Your task to perform on an android device: change text size in settings app Image 0: 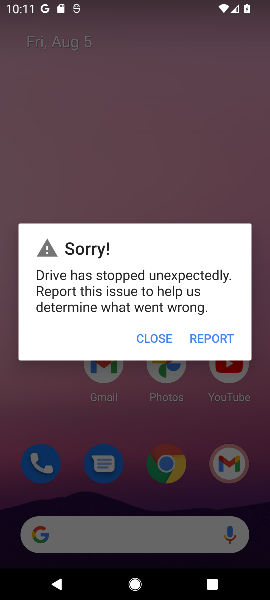
Step 0: click (170, 347)
Your task to perform on an android device: change text size in settings app Image 1: 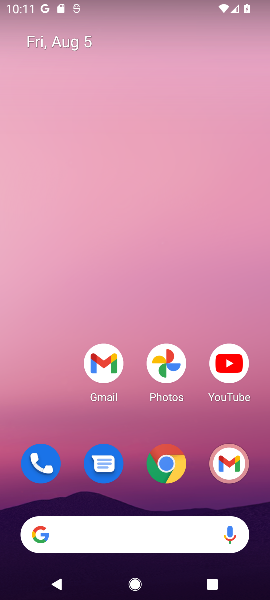
Step 1: drag from (188, 494) to (125, 108)
Your task to perform on an android device: change text size in settings app Image 2: 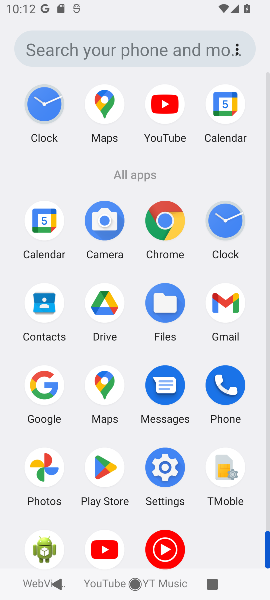
Step 2: click (173, 459)
Your task to perform on an android device: change text size in settings app Image 3: 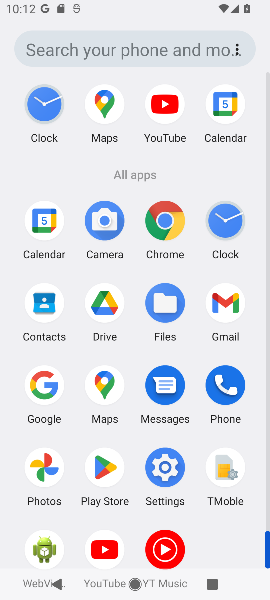
Step 3: click (164, 465)
Your task to perform on an android device: change text size in settings app Image 4: 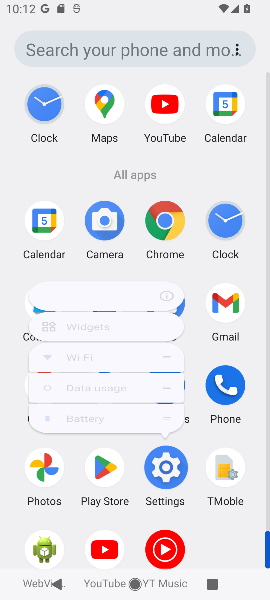
Step 4: click (166, 464)
Your task to perform on an android device: change text size in settings app Image 5: 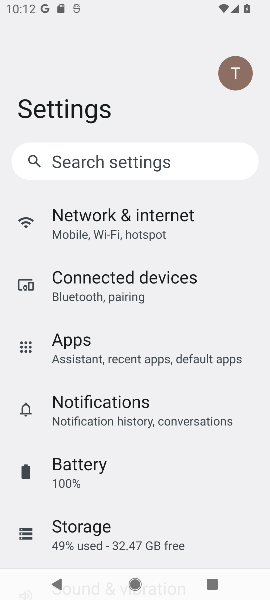
Step 5: click (161, 464)
Your task to perform on an android device: change text size in settings app Image 6: 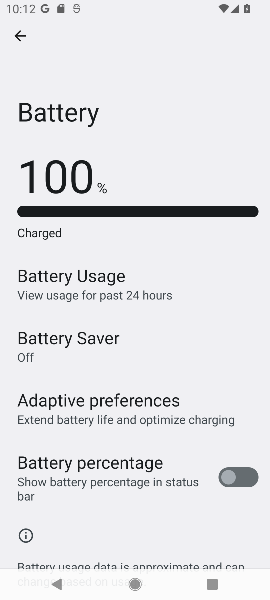
Step 6: click (15, 33)
Your task to perform on an android device: change text size in settings app Image 7: 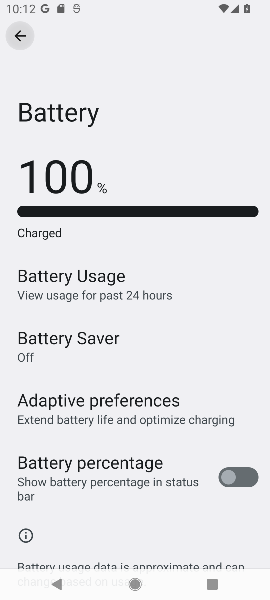
Step 7: click (20, 41)
Your task to perform on an android device: change text size in settings app Image 8: 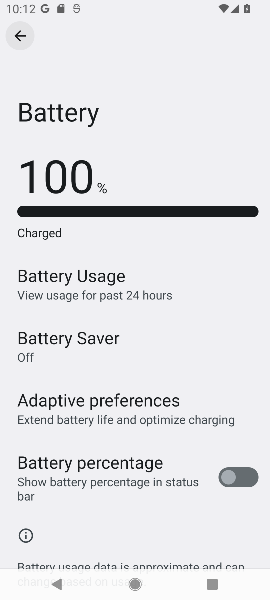
Step 8: click (20, 41)
Your task to perform on an android device: change text size in settings app Image 9: 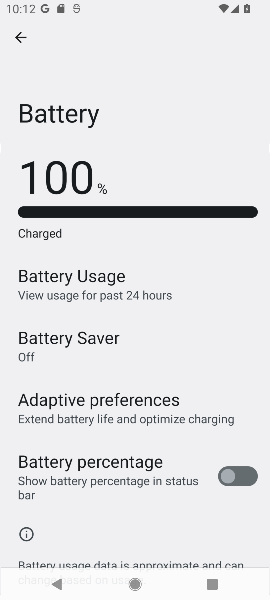
Step 9: click (20, 44)
Your task to perform on an android device: change text size in settings app Image 10: 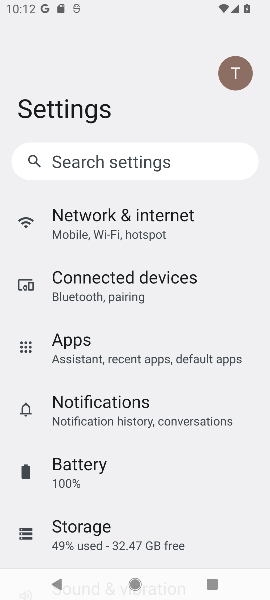
Step 10: click (20, 43)
Your task to perform on an android device: change text size in settings app Image 11: 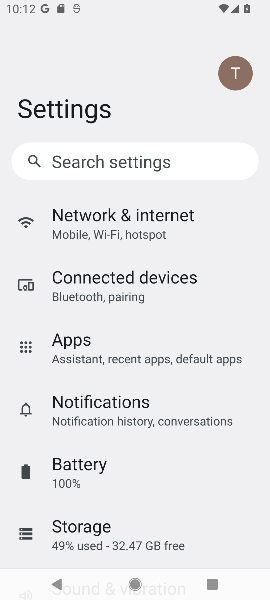
Step 11: drag from (104, 422) to (101, 219)
Your task to perform on an android device: change text size in settings app Image 12: 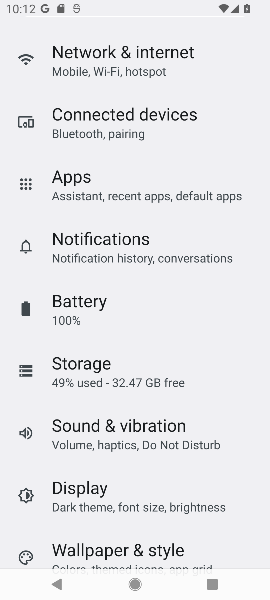
Step 12: drag from (100, 394) to (104, 87)
Your task to perform on an android device: change text size in settings app Image 13: 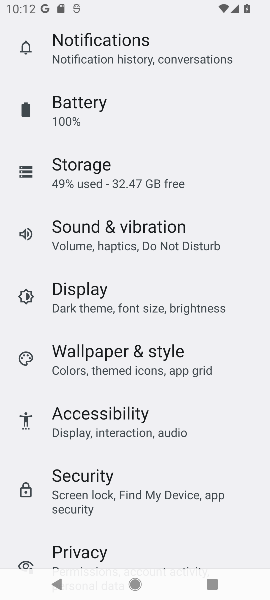
Step 13: drag from (104, 350) to (83, 180)
Your task to perform on an android device: change text size in settings app Image 14: 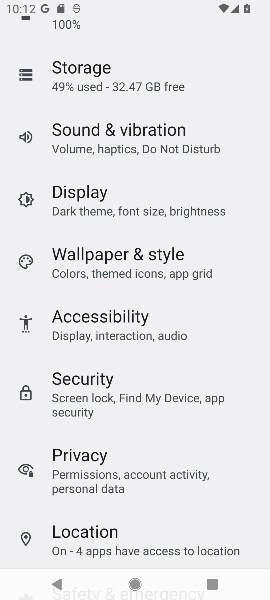
Step 14: click (92, 203)
Your task to perform on an android device: change text size in settings app Image 15: 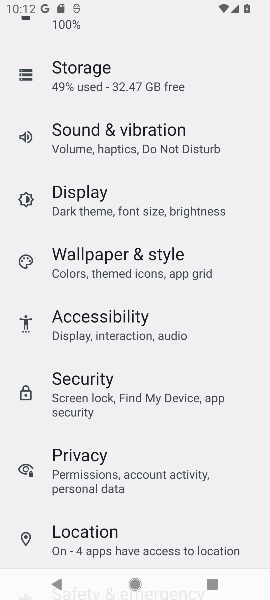
Step 15: click (92, 203)
Your task to perform on an android device: change text size in settings app Image 16: 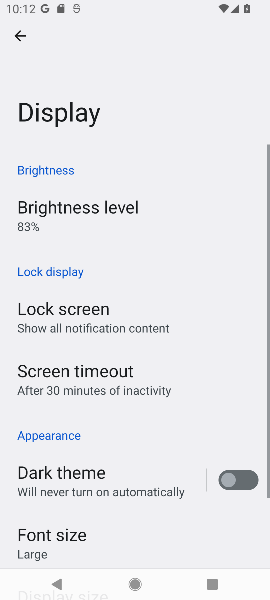
Step 16: click (92, 204)
Your task to perform on an android device: change text size in settings app Image 17: 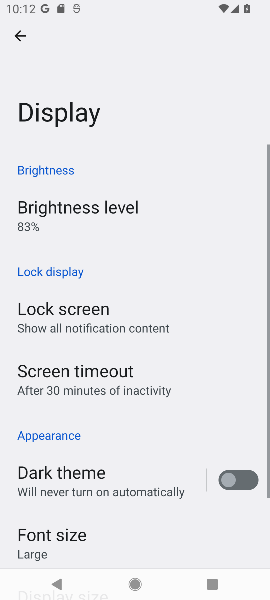
Step 17: click (92, 204)
Your task to perform on an android device: change text size in settings app Image 18: 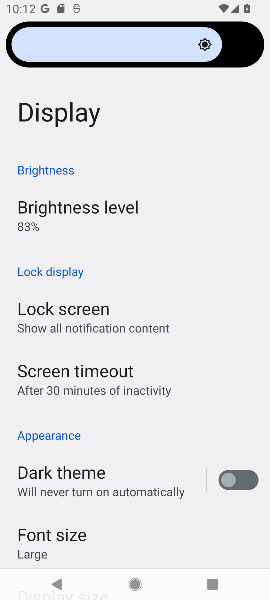
Step 18: press back button
Your task to perform on an android device: change text size in settings app Image 19: 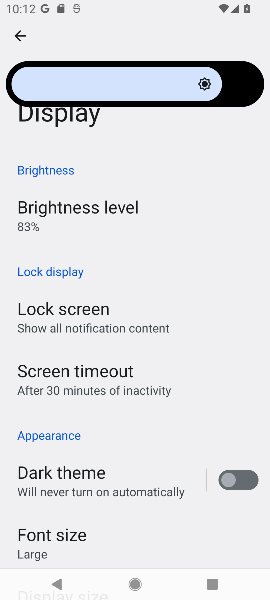
Step 19: press back button
Your task to perform on an android device: change text size in settings app Image 20: 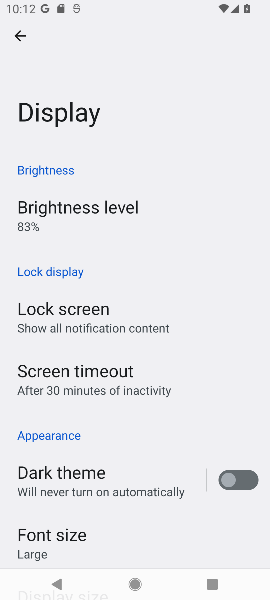
Step 20: press back button
Your task to perform on an android device: change text size in settings app Image 21: 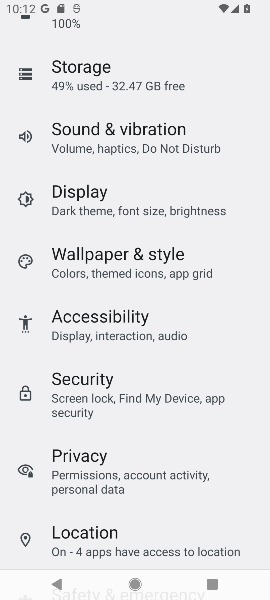
Step 21: press back button
Your task to perform on an android device: change text size in settings app Image 22: 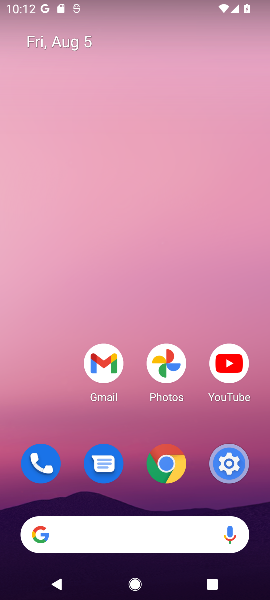
Step 22: drag from (176, 562) to (104, 204)
Your task to perform on an android device: change text size in settings app Image 23: 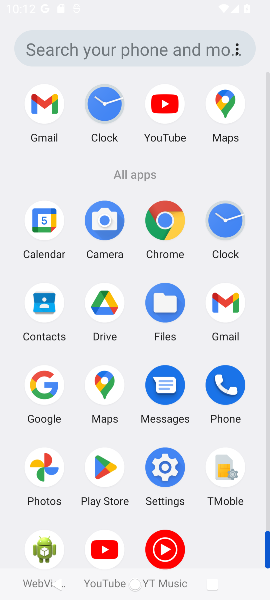
Step 23: drag from (106, 460) to (106, 151)
Your task to perform on an android device: change text size in settings app Image 24: 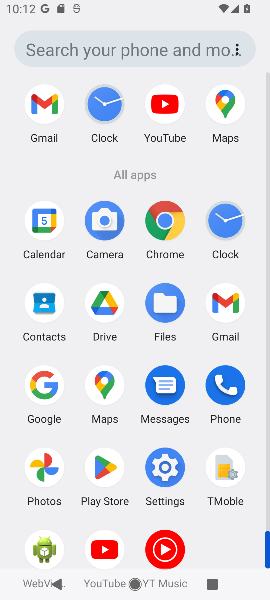
Step 24: click (172, 469)
Your task to perform on an android device: change text size in settings app Image 25: 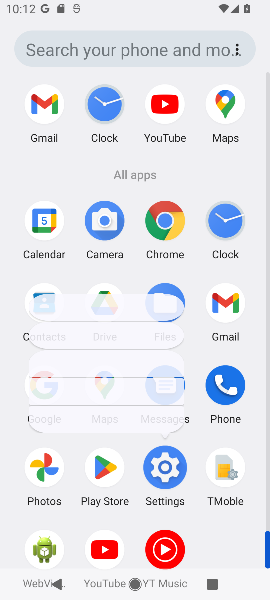
Step 25: click (172, 469)
Your task to perform on an android device: change text size in settings app Image 26: 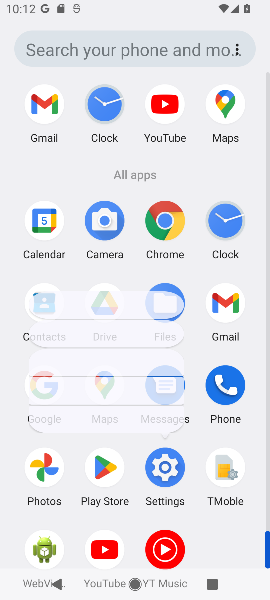
Step 26: click (171, 465)
Your task to perform on an android device: change text size in settings app Image 27: 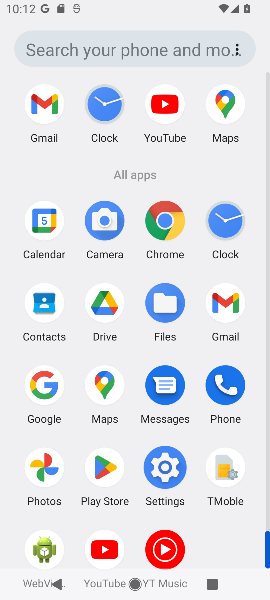
Step 27: click (171, 465)
Your task to perform on an android device: change text size in settings app Image 28: 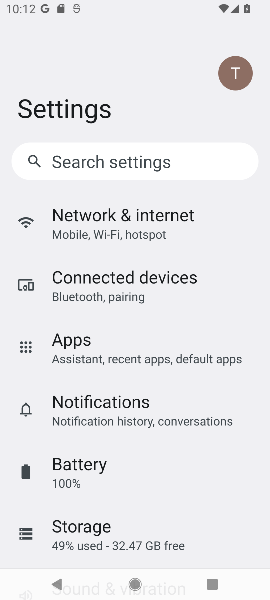
Step 28: drag from (124, 368) to (124, 236)
Your task to perform on an android device: change text size in settings app Image 29: 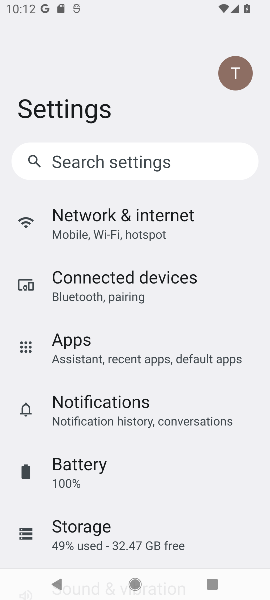
Step 29: drag from (102, 393) to (94, 214)
Your task to perform on an android device: change text size in settings app Image 30: 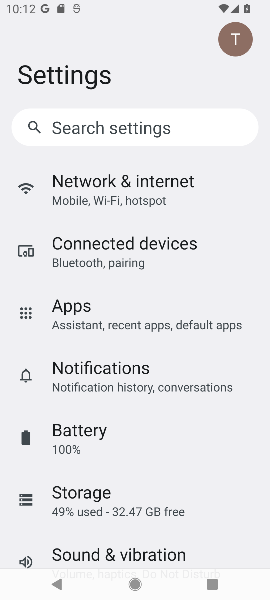
Step 30: drag from (153, 402) to (141, 154)
Your task to perform on an android device: change text size in settings app Image 31: 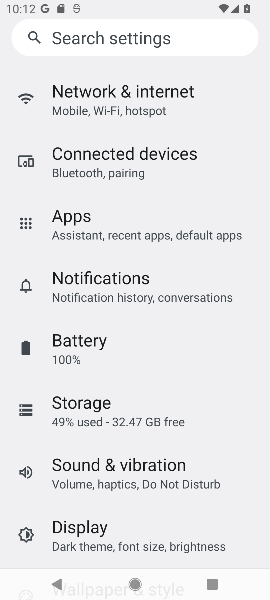
Step 31: drag from (109, 478) to (75, 246)
Your task to perform on an android device: change text size in settings app Image 32: 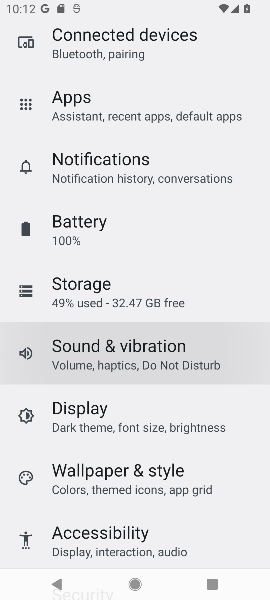
Step 32: drag from (87, 448) to (88, 244)
Your task to perform on an android device: change text size in settings app Image 33: 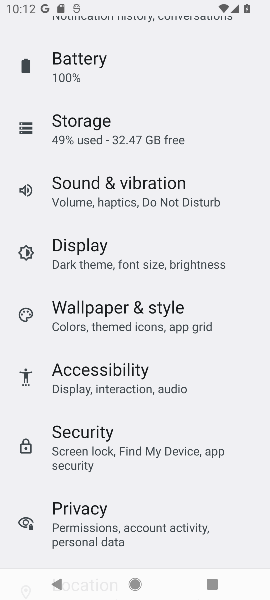
Step 33: click (77, 254)
Your task to perform on an android device: change text size in settings app Image 34: 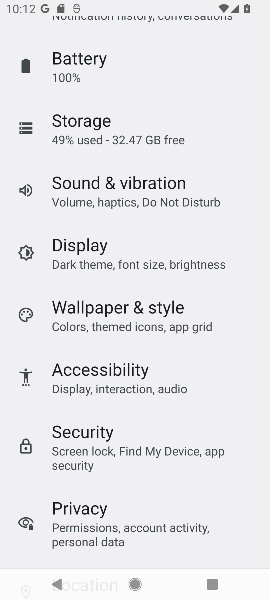
Step 34: click (77, 254)
Your task to perform on an android device: change text size in settings app Image 35: 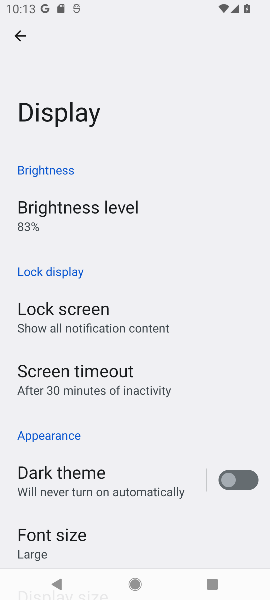
Step 35: task complete